Your task to perform on an android device: turn notification dots on Image 0: 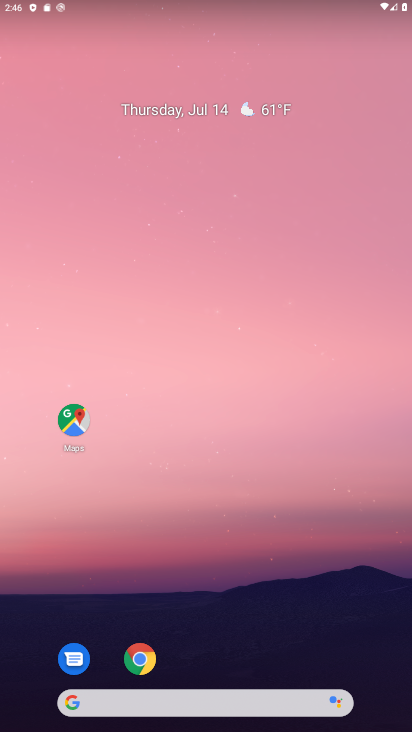
Step 0: drag from (217, 695) to (286, 138)
Your task to perform on an android device: turn notification dots on Image 1: 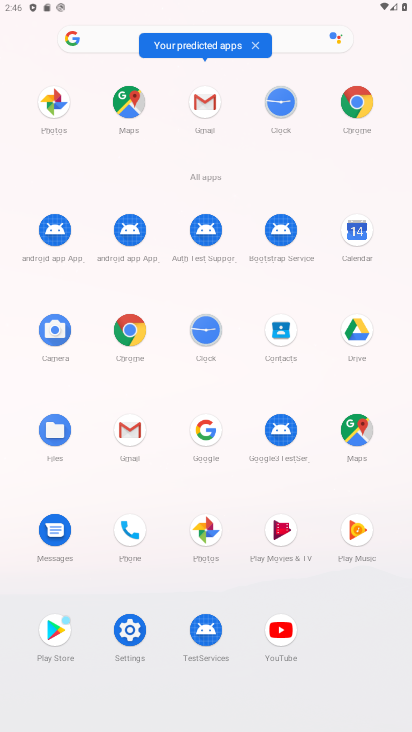
Step 1: click (131, 629)
Your task to perform on an android device: turn notification dots on Image 2: 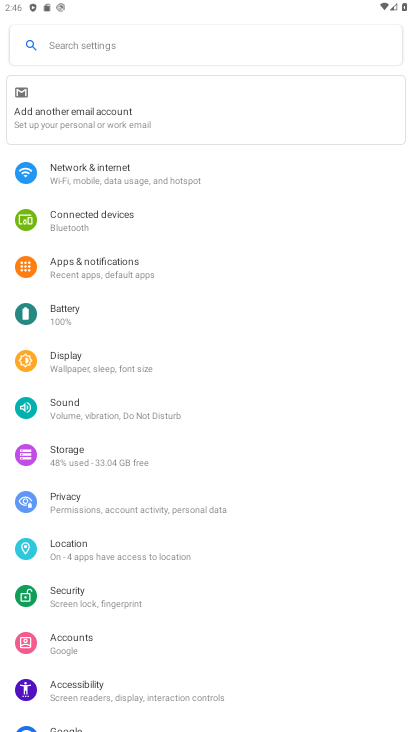
Step 2: click (110, 275)
Your task to perform on an android device: turn notification dots on Image 3: 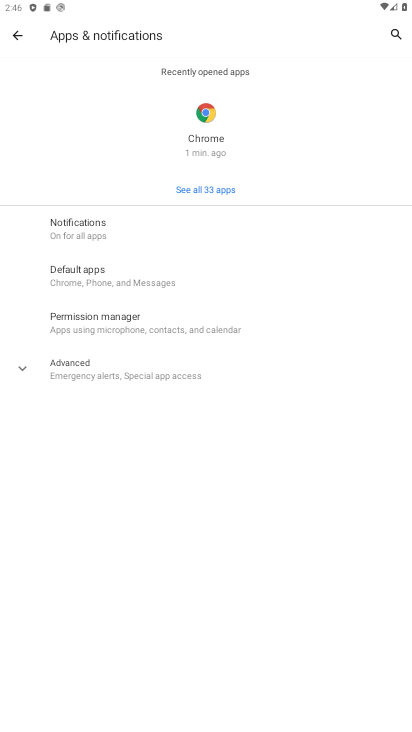
Step 3: click (86, 220)
Your task to perform on an android device: turn notification dots on Image 4: 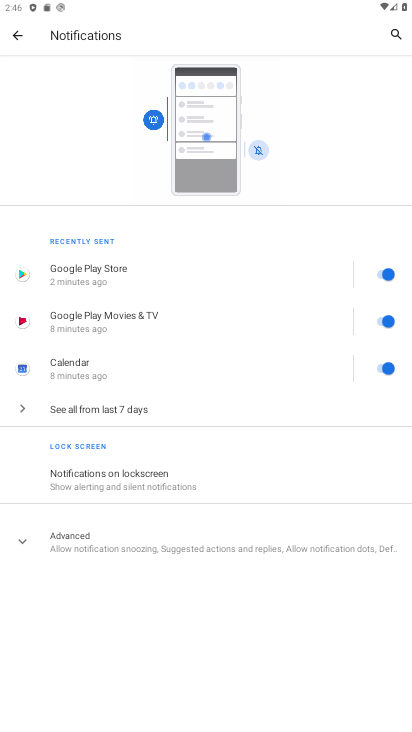
Step 4: click (140, 541)
Your task to perform on an android device: turn notification dots on Image 5: 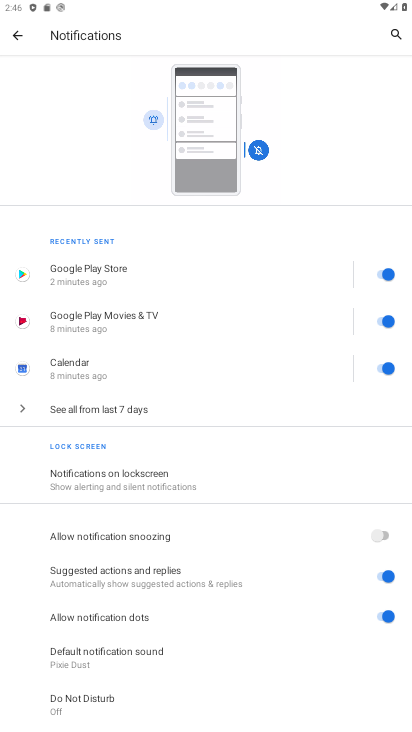
Step 5: task complete